Your task to perform on an android device: turn off airplane mode Image 0: 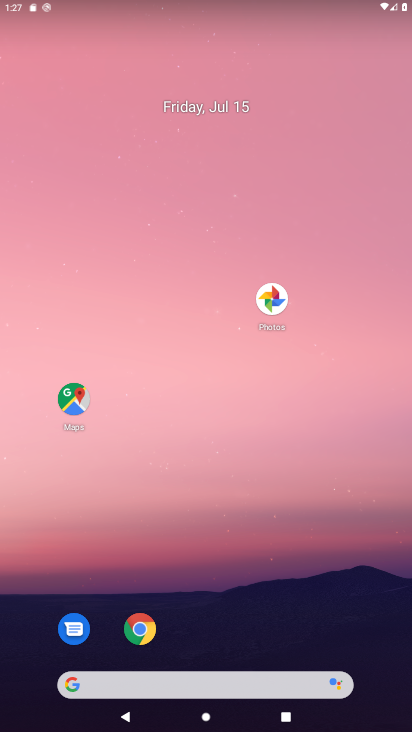
Step 0: drag from (140, 655) to (162, 339)
Your task to perform on an android device: turn off airplane mode Image 1: 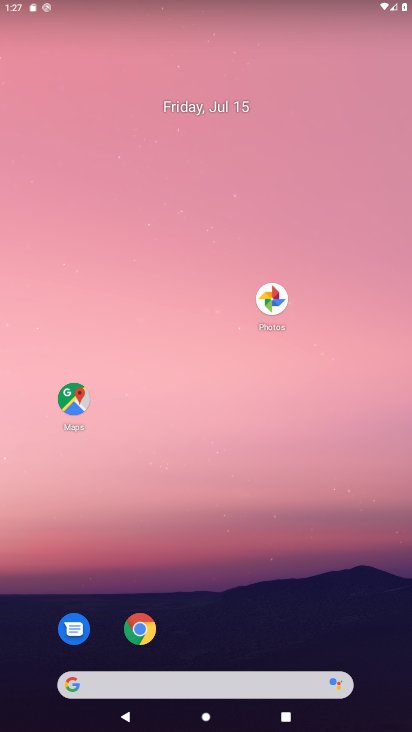
Step 1: drag from (195, 624) to (195, 286)
Your task to perform on an android device: turn off airplane mode Image 2: 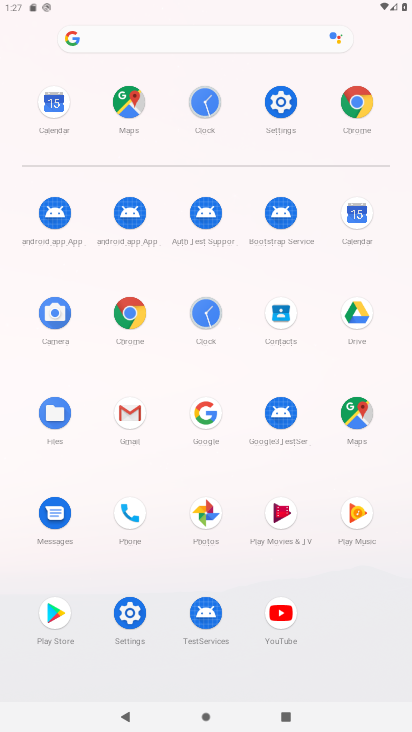
Step 2: click (279, 106)
Your task to perform on an android device: turn off airplane mode Image 3: 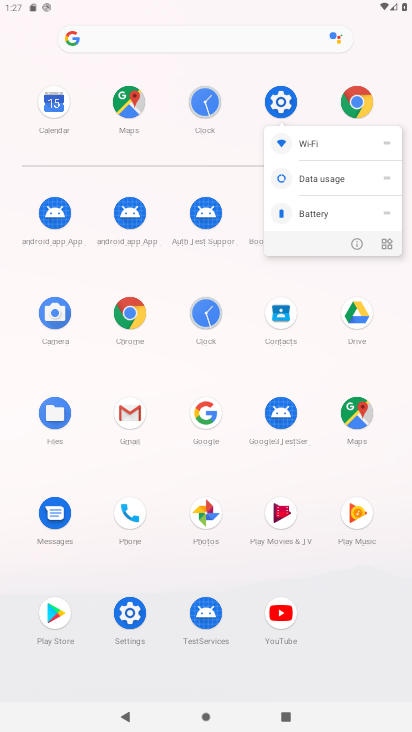
Step 3: click (279, 108)
Your task to perform on an android device: turn off airplane mode Image 4: 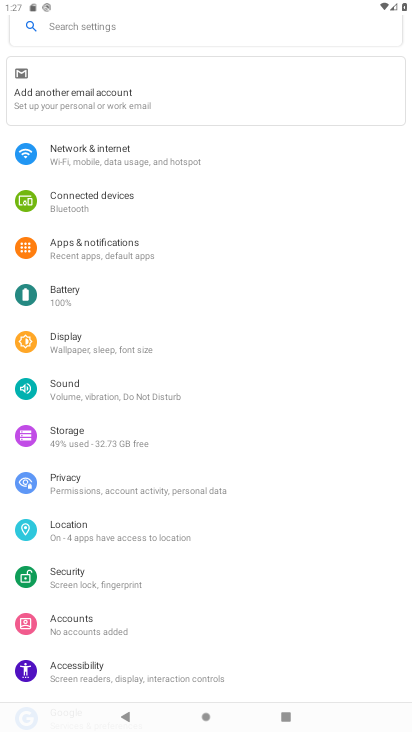
Step 4: click (141, 150)
Your task to perform on an android device: turn off airplane mode Image 5: 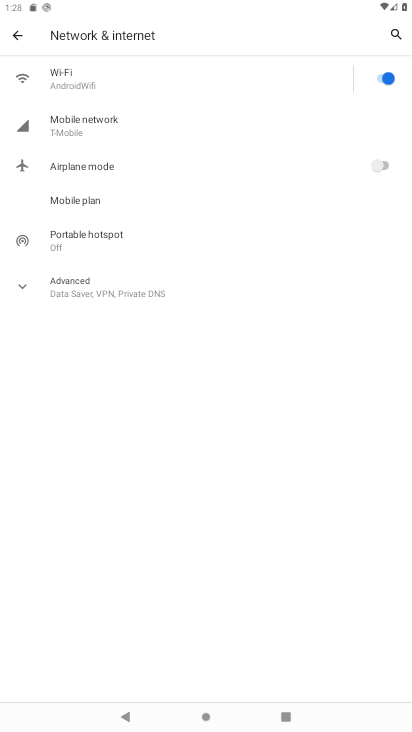
Step 5: click (382, 159)
Your task to perform on an android device: turn off airplane mode Image 6: 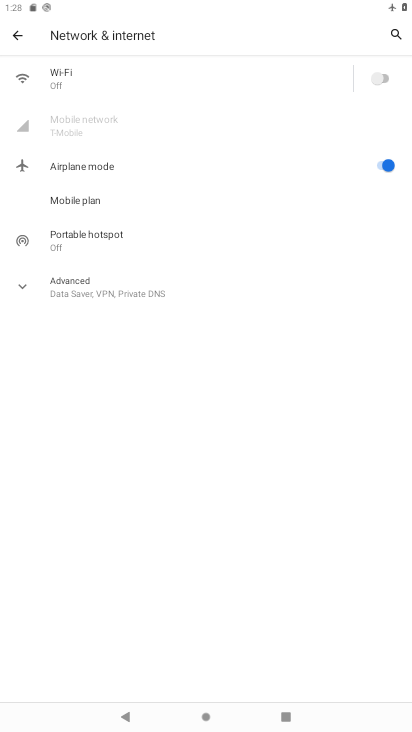
Step 6: task complete